Your task to perform on an android device: clear all cookies in the chrome app Image 0: 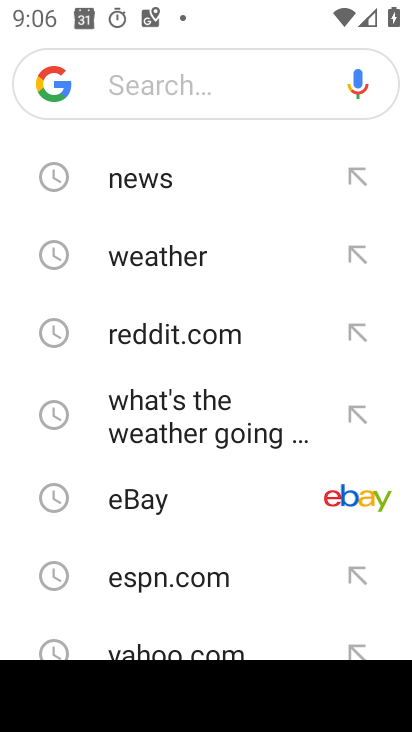
Step 0: press home button
Your task to perform on an android device: clear all cookies in the chrome app Image 1: 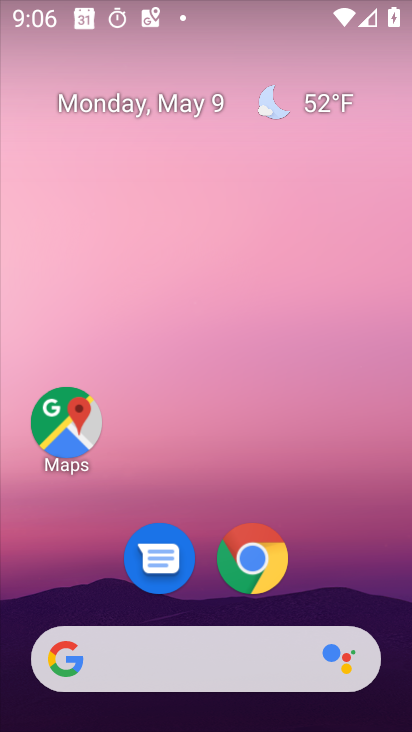
Step 1: click (246, 547)
Your task to perform on an android device: clear all cookies in the chrome app Image 2: 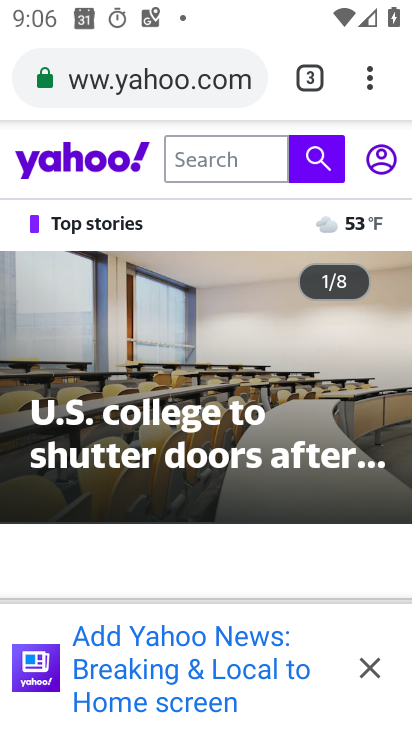
Step 2: drag from (364, 86) to (174, 386)
Your task to perform on an android device: clear all cookies in the chrome app Image 3: 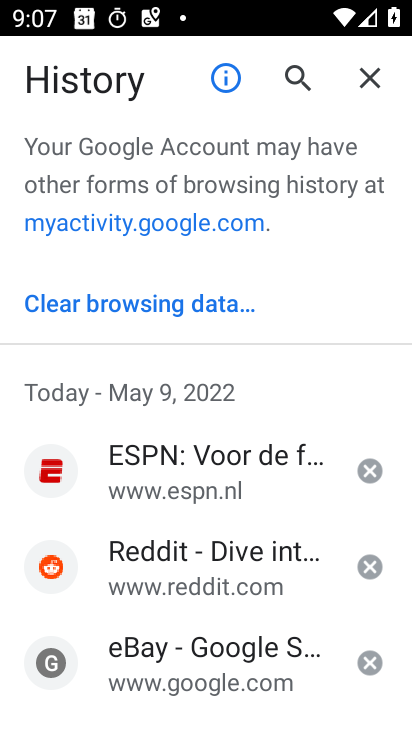
Step 3: click (193, 316)
Your task to perform on an android device: clear all cookies in the chrome app Image 4: 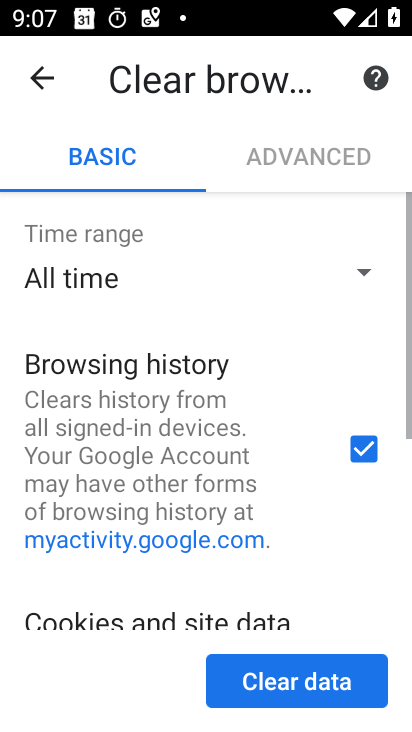
Step 4: drag from (217, 559) to (295, 252)
Your task to perform on an android device: clear all cookies in the chrome app Image 5: 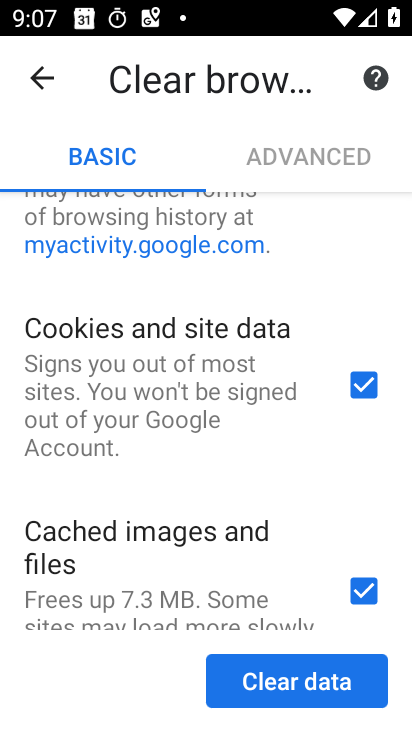
Step 5: drag from (335, 233) to (280, 454)
Your task to perform on an android device: clear all cookies in the chrome app Image 6: 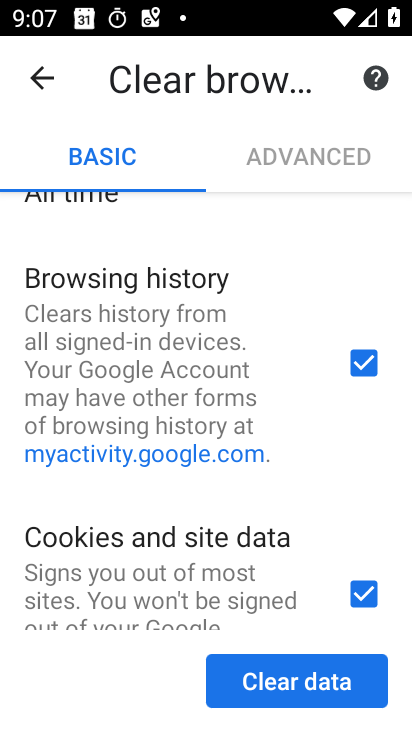
Step 6: click (364, 375)
Your task to perform on an android device: clear all cookies in the chrome app Image 7: 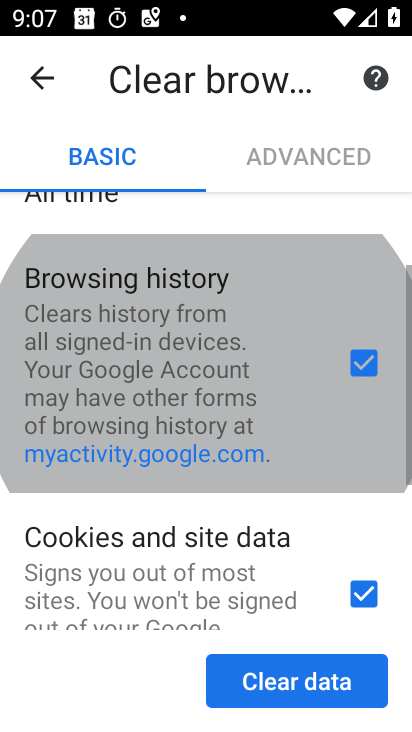
Step 7: drag from (168, 556) to (220, 302)
Your task to perform on an android device: clear all cookies in the chrome app Image 8: 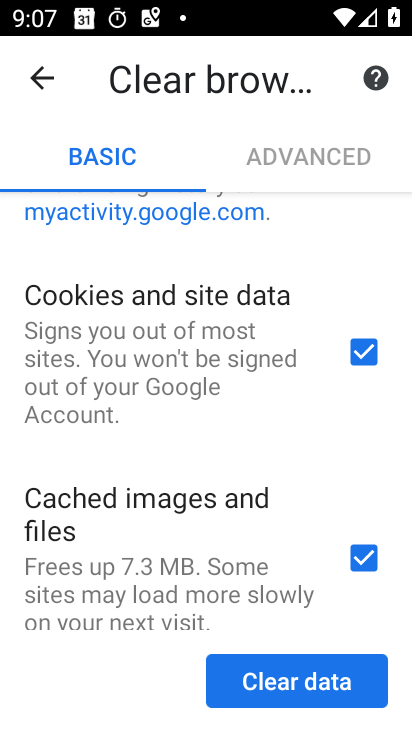
Step 8: click (351, 545)
Your task to perform on an android device: clear all cookies in the chrome app Image 9: 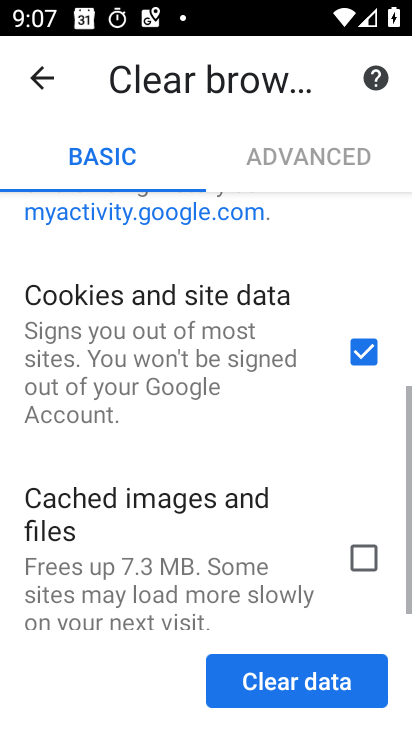
Step 9: click (239, 696)
Your task to perform on an android device: clear all cookies in the chrome app Image 10: 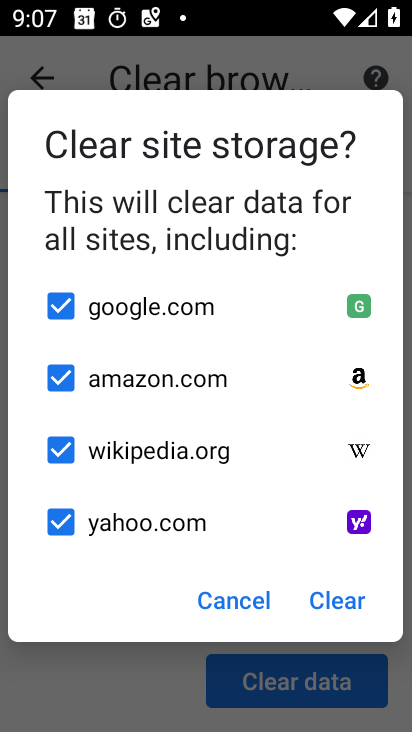
Step 10: click (338, 587)
Your task to perform on an android device: clear all cookies in the chrome app Image 11: 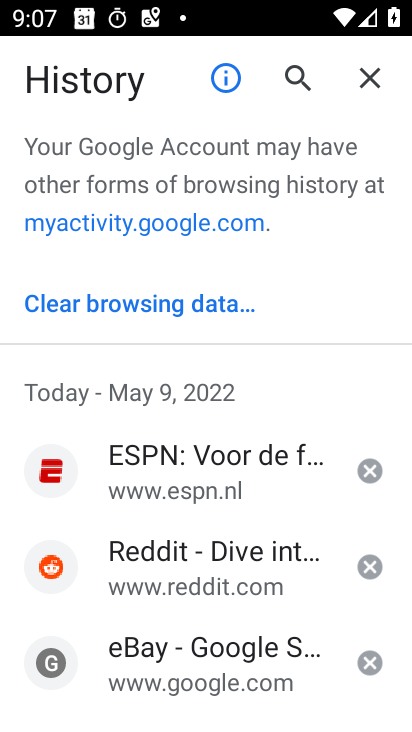
Step 11: task complete